Your task to perform on an android device: open app "Clock" (install if not already installed) Image 0: 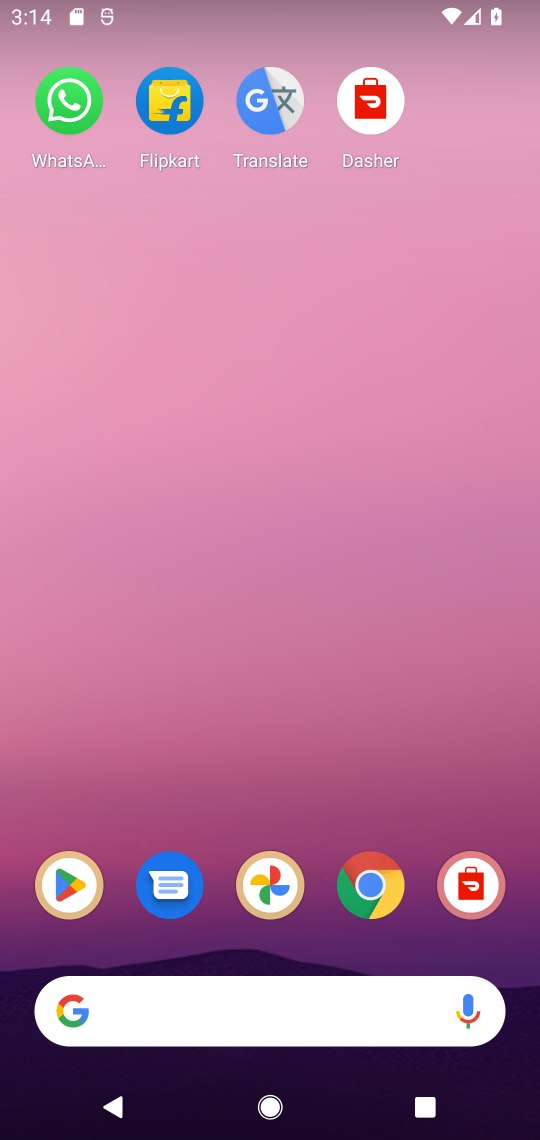
Step 0: click (75, 874)
Your task to perform on an android device: open app "Clock" (install if not already installed) Image 1: 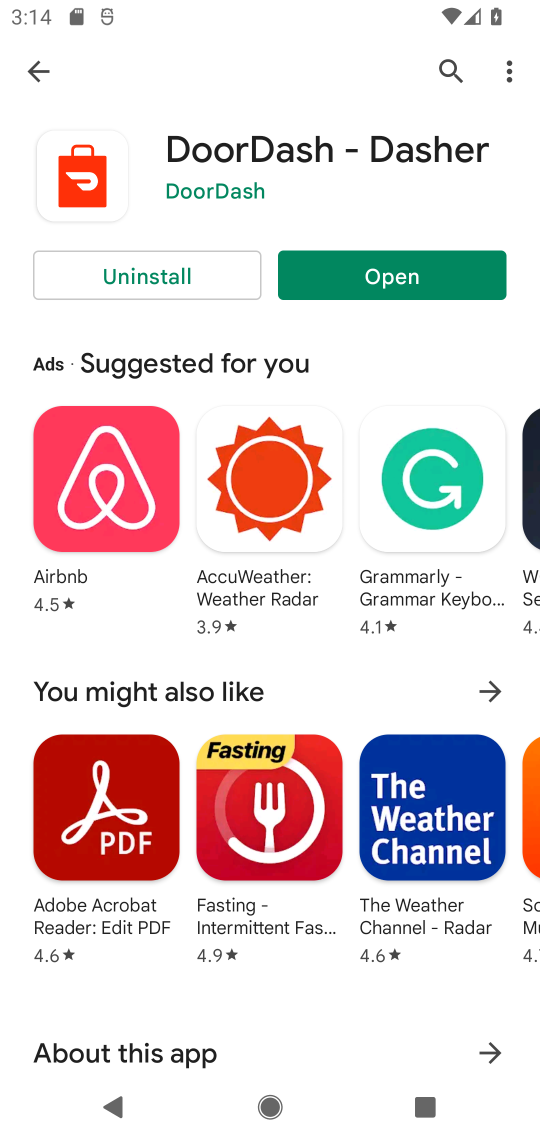
Step 1: click (449, 75)
Your task to perform on an android device: open app "Clock" (install if not already installed) Image 2: 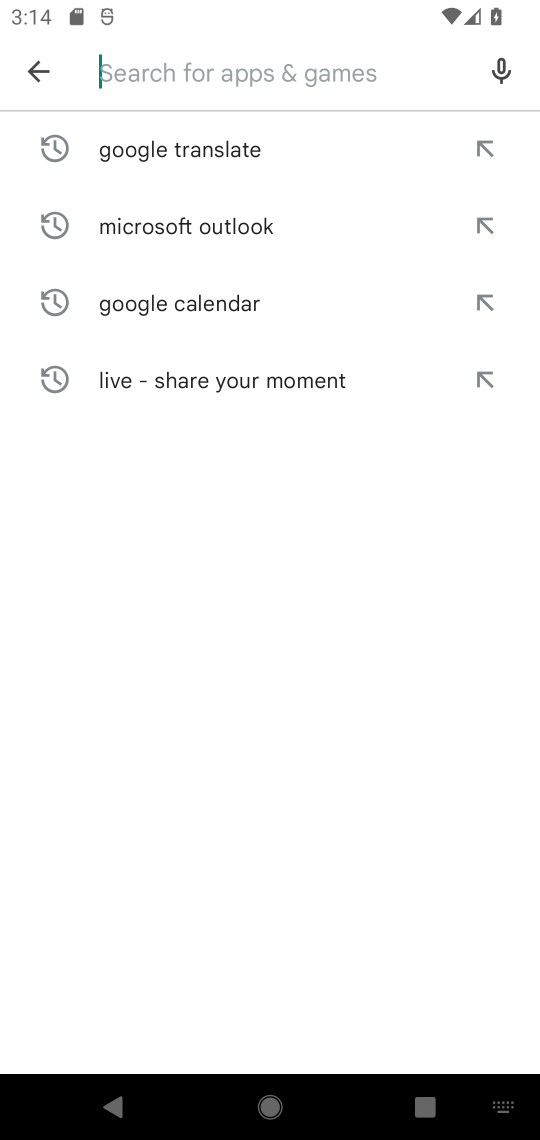
Step 2: click (449, 75)
Your task to perform on an android device: open app "Clock" (install if not already installed) Image 3: 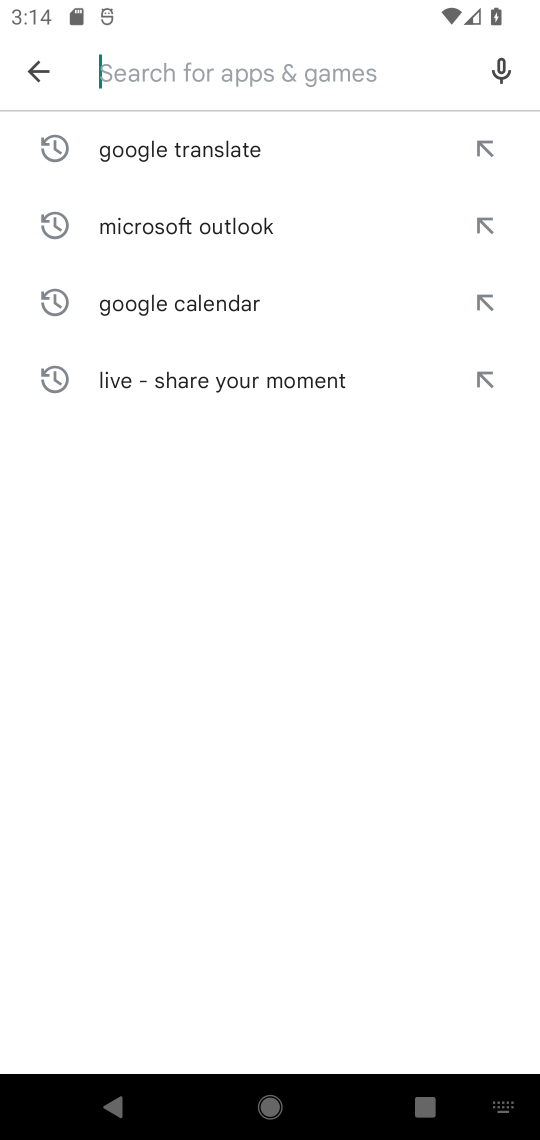
Step 3: type "Clock"
Your task to perform on an android device: open app "Clock" (install if not already installed) Image 4: 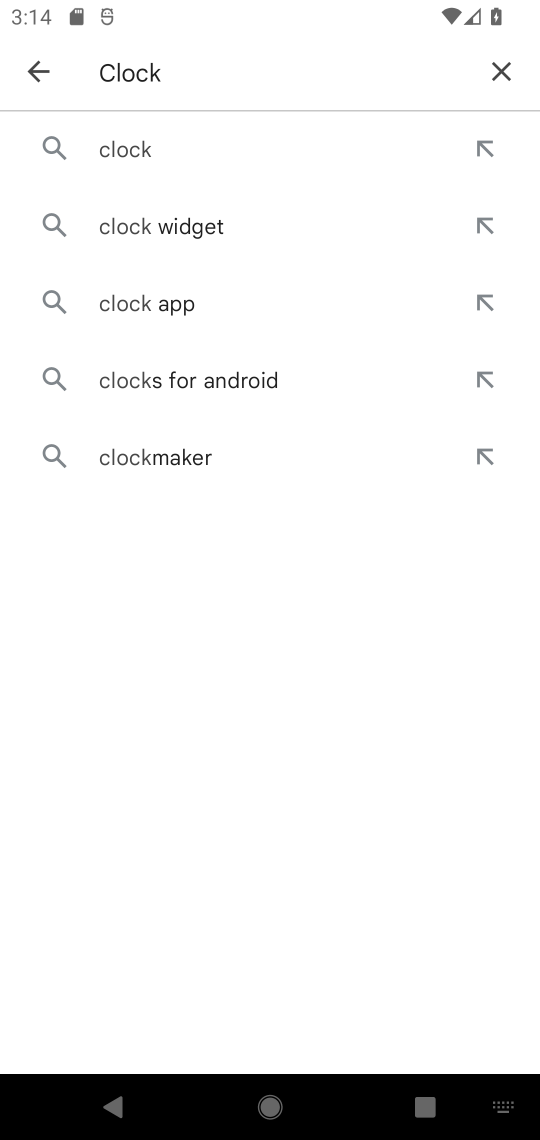
Step 4: click (111, 152)
Your task to perform on an android device: open app "Clock" (install if not already installed) Image 5: 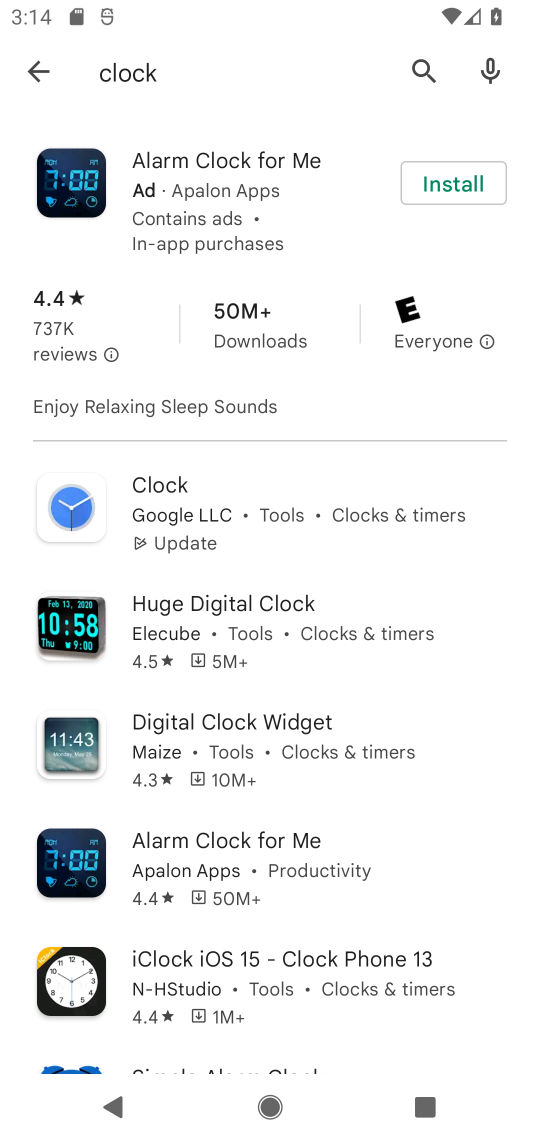
Step 5: click (248, 517)
Your task to perform on an android device: open app "Clock" (install if not already installed) Image 6: 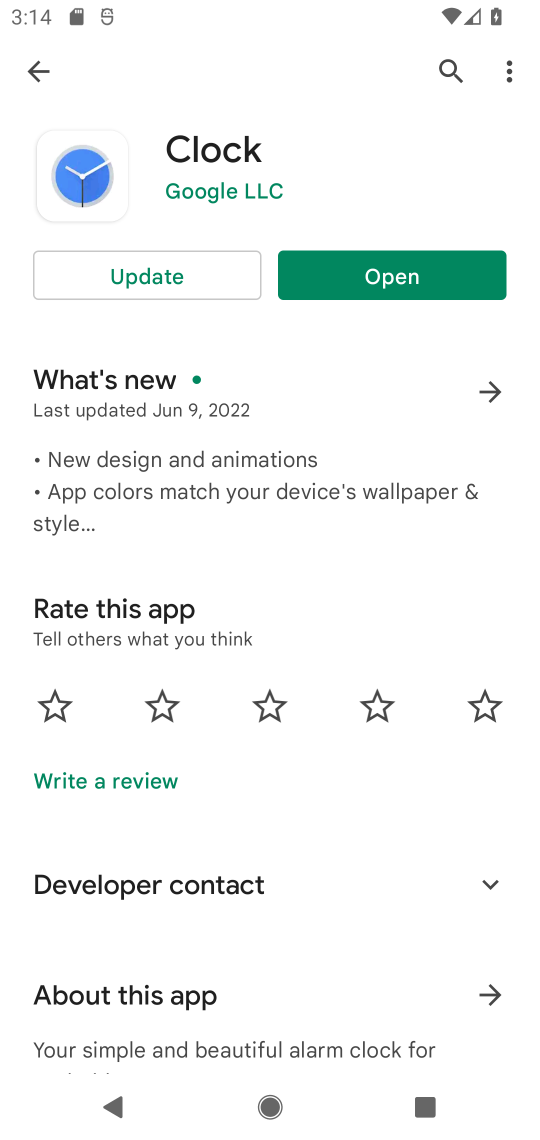
Step 6: click (344, 265)
Your task to perform on an android device: open app "Clock" (install if not already installed) Image 7: 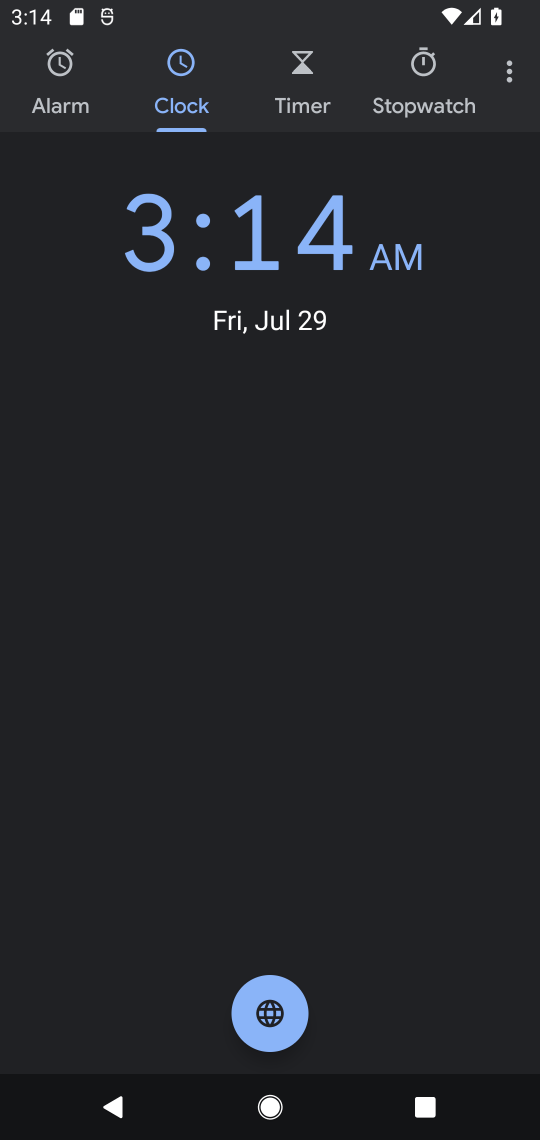
Step 7: task complete